Your task to perform on an android device: turn on notifications settings in the gmail app Image 0: 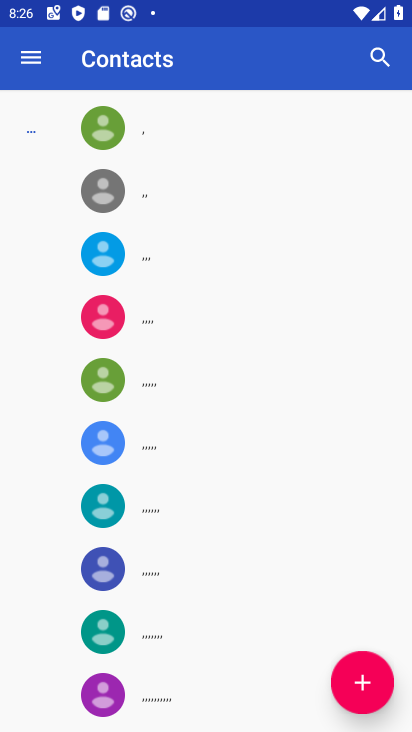
Step 0: press home button
Your task to perform on an android device: turn on notifications settings in the gmail app Image 1: 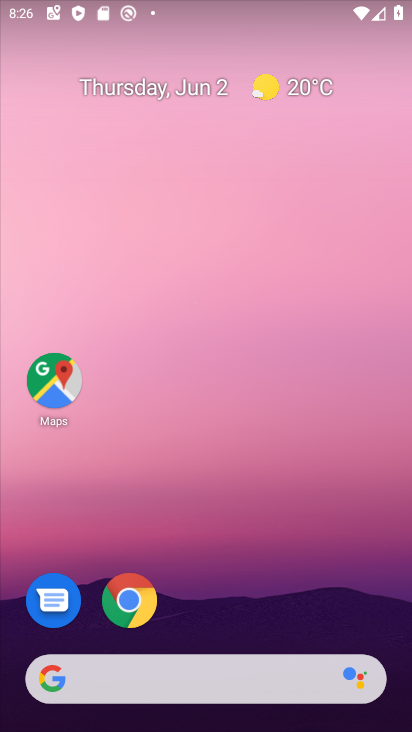
Step 1: drag from (365, 608) to (370, 168)
Your task to perform on an android device: turn on notifications settings in the gmail app Image 2: 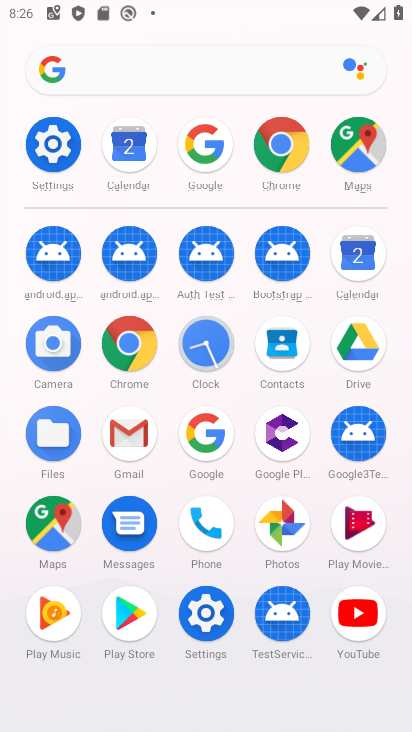
Step 2: click (135, 433)
Your task to perform on an android device: turn on notifications settings in the gmail app Image 3: 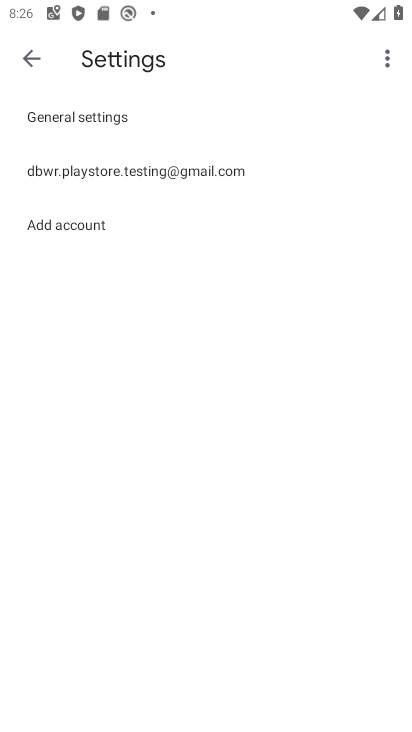
Step 3: click (143, 179)
Your task to perform on an android device: turn on notifications settings in the gmail app Image 4: 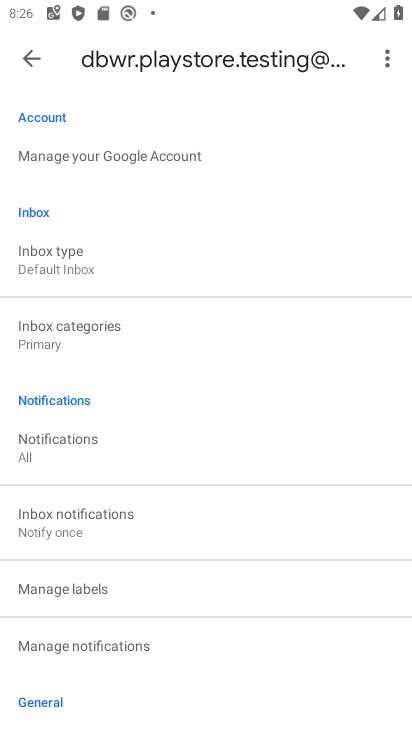
Step 4: drag from (266, 467) to (273, 329)
Your task to perform on an android device: turn on notifications settings in the gmail app Image 5: 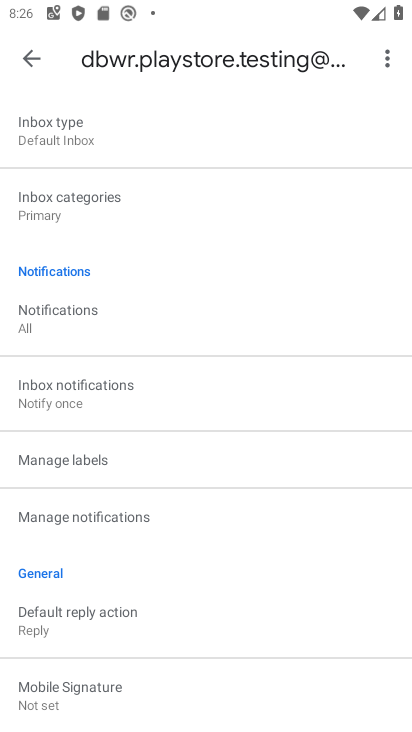
Step 5: drag from (273, 469) to (273, 365)
Your task to perform on an android device: turn on notifications settings in the gmail app Image 6: 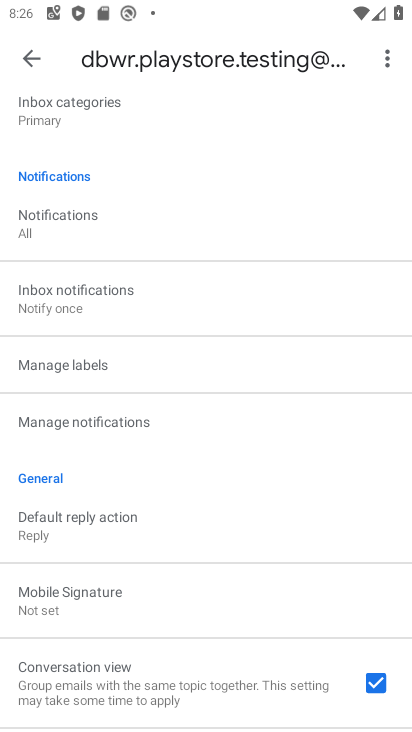
Step 6: drag from (274, 480) to (284, 374)
Your task to perform on an android device: turn on notifications settings in the gmail app Image 7: 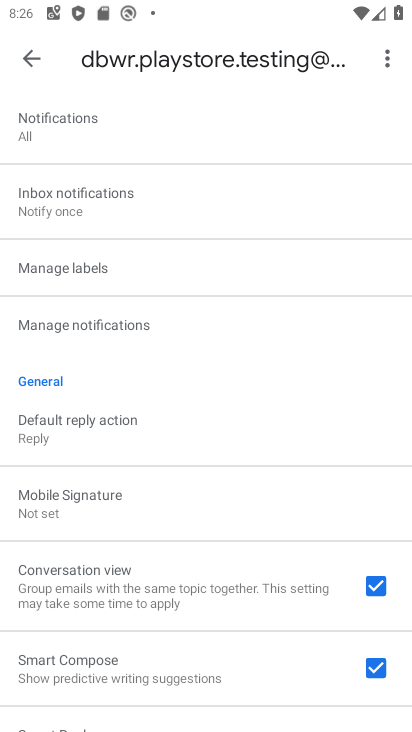
Step 7: drag from (269, 517) to (280, 360)
Your task to perform on an android device: turn on notifications settings in the gmail app Image 8: 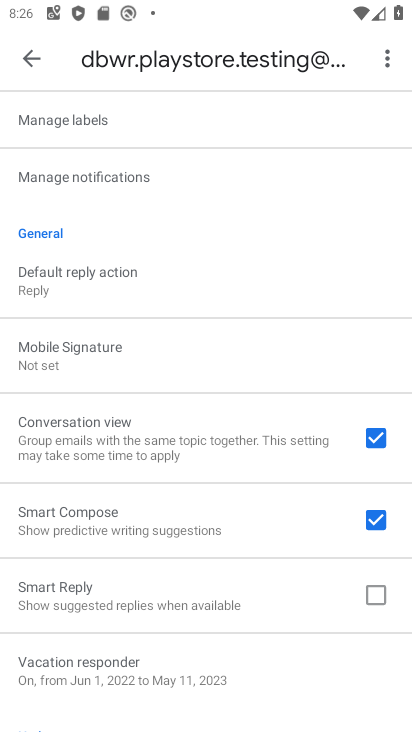
Step 8: drag from (272, 501) to (278, 429)
Your task to perform on an android device: turn on notifications settings in the gmail app Image 9: 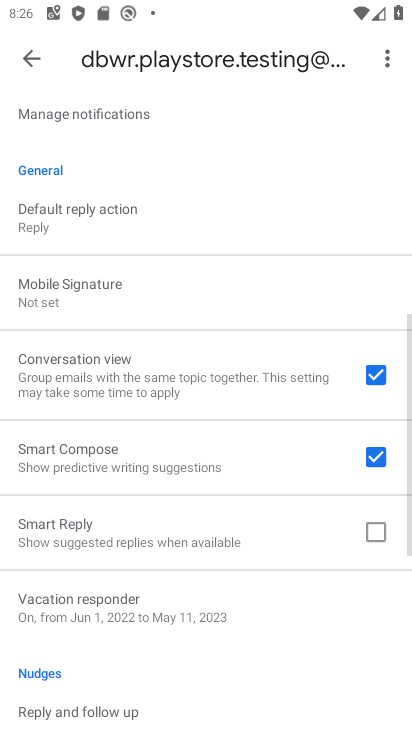
Step 9: drag from (272, 293) to (278, 395)
Your task to perform on an android device: turn on notifications settings in the gmail app Image 10: 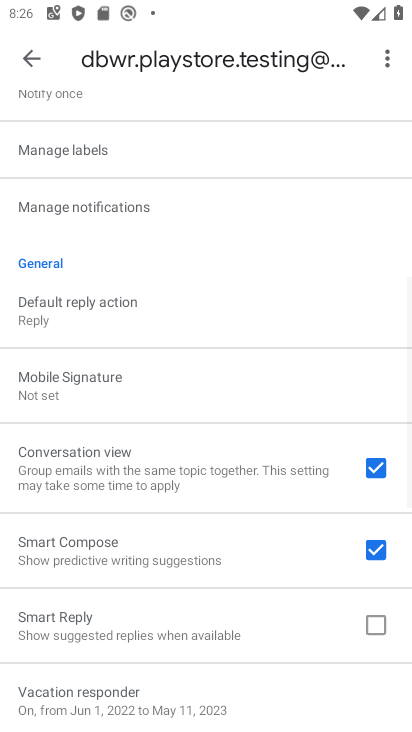
Step 10: drag from (274, 286) to (277, 419)
Your task to perform on an android device: turn on notifications settings in the gmail app Image 11: 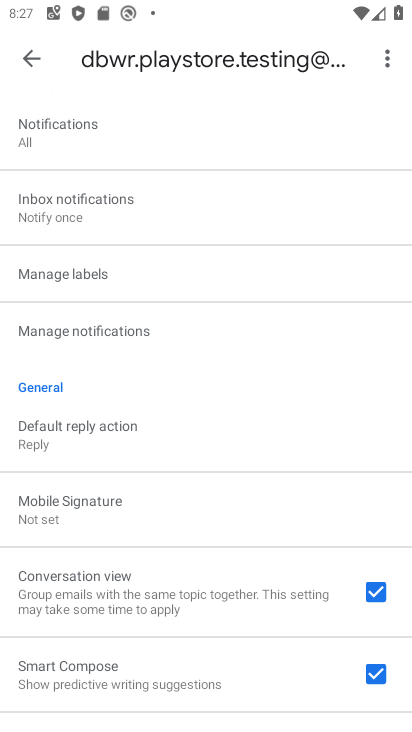
Step 11: drag from (272, 272) to (270, 363)
Your task to perform on an android device: turn on notifications settings in the gmail app Image 12: 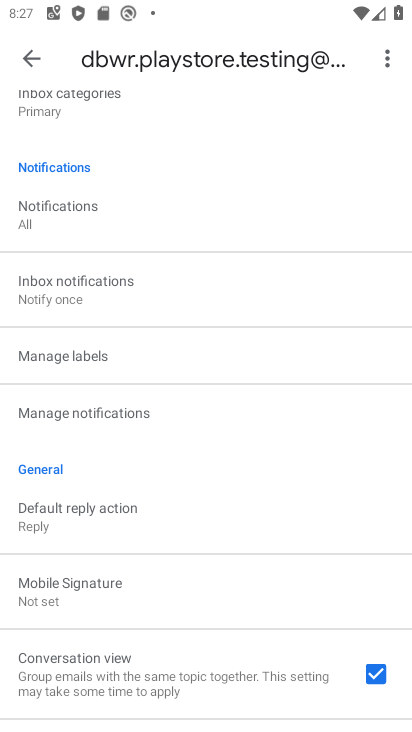
Step 12: click (177, 414)
Your task to perform on an android device: turn on notifications settings in the gmail app Image 13: 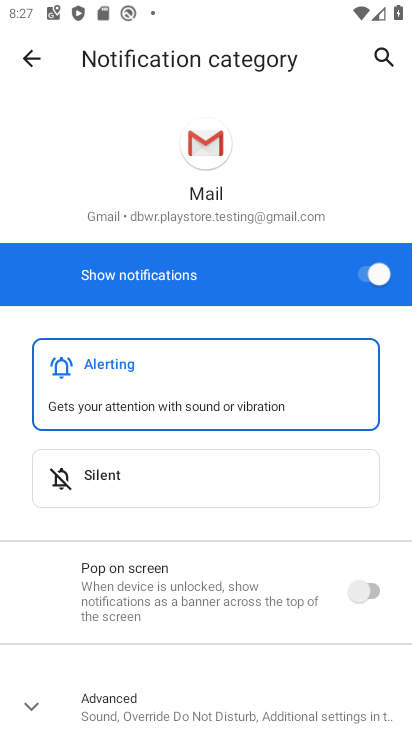
Step 13: task complete